Your task to perform on an android device: toggle show notifications on the lock screen Image 0: 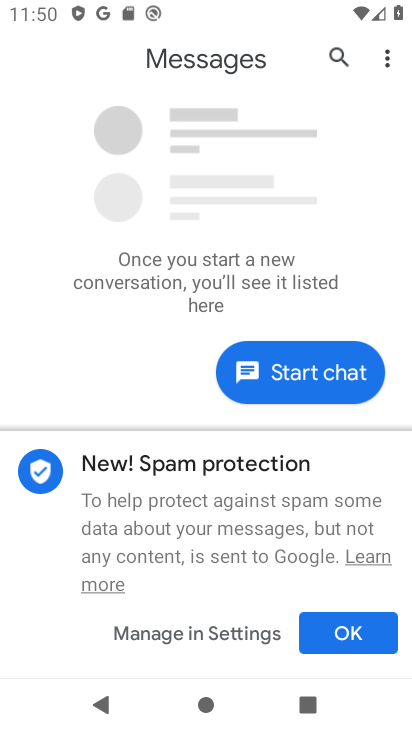
Step 0: press home button
Your task to perform on an android device: toggle show notifications on the lock screen Image 1: 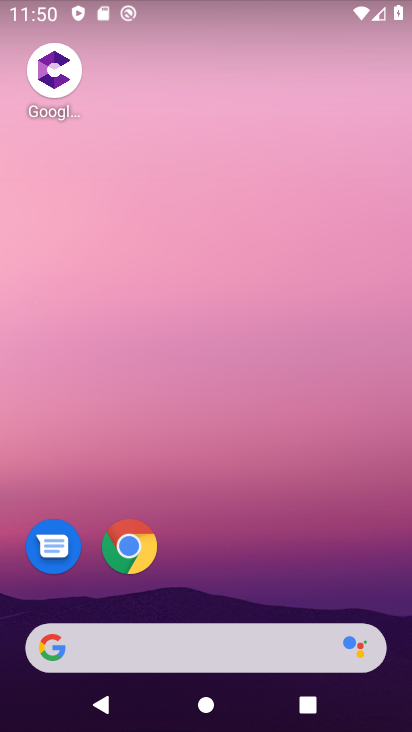
Step 1: drag from (258, 501) to (261, 94)
Your task to perform on an android device: toggle show notifications on the lock screen Image 2: 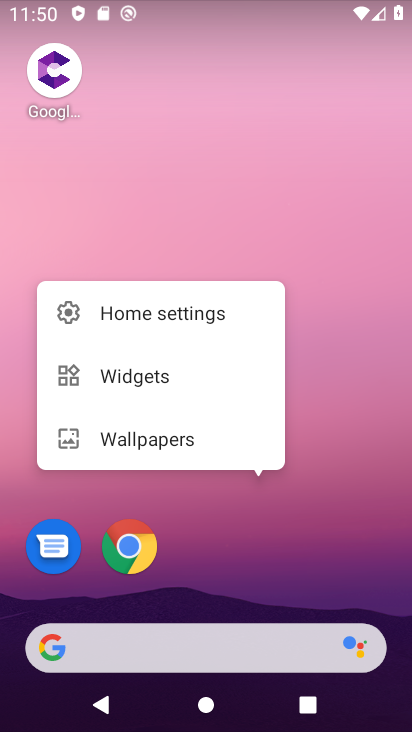
Step 2: click (318, 563)
Your task to perform on an android device: toggle show notifications on the lock screen Image 3: 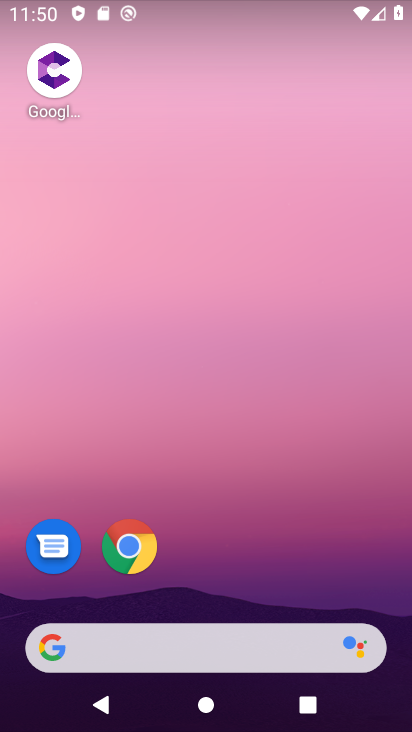
Step 3: drag from (318, 565) to (296, 67)
Your task to perform on an android device: toggle show notifications on the lock screen Image 4: 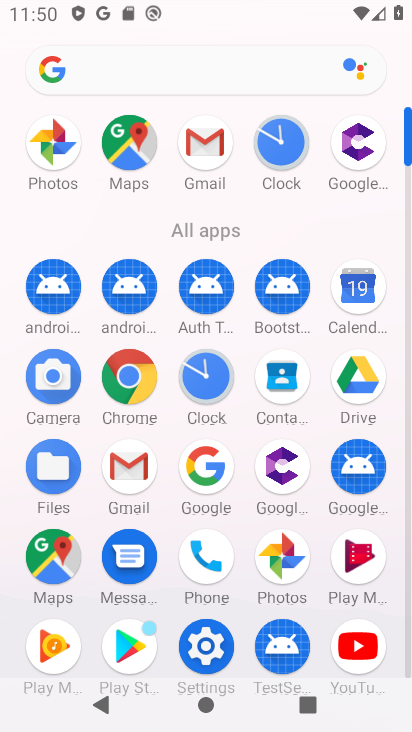
Step 4: click (213, 632)
Your task to perform on an android device: toggle show notifications on the lock screen Image 5: 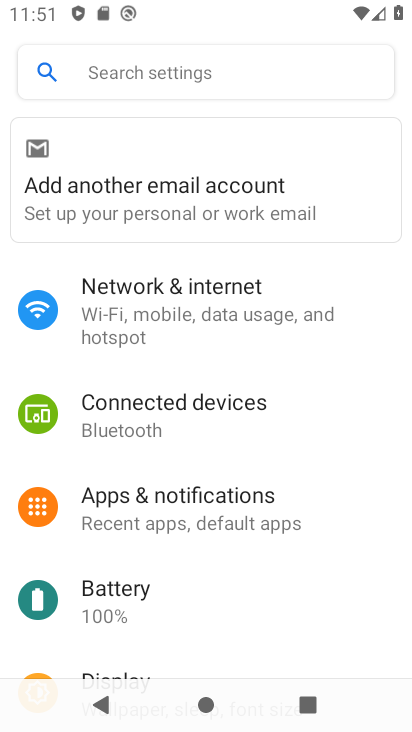
Step 5: drag from (225, 626) to (238, 231)
Your task to perform on an android device: toggle show notifications on the lock screen Image 6: 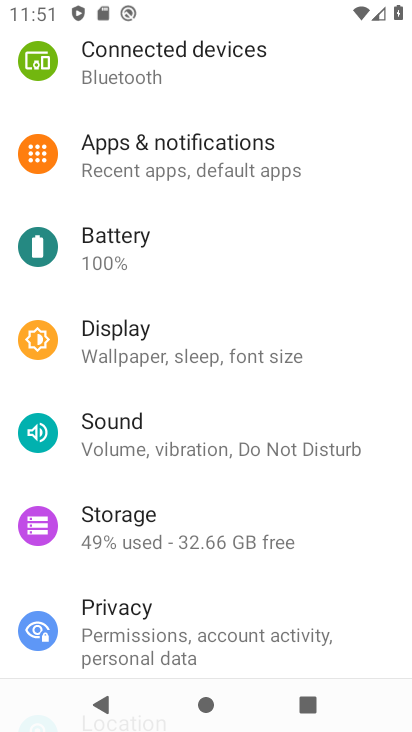
Step 6: click (206, 166)
Your task to perform on an android device: toggle show notifications on the lock screen Image 7: 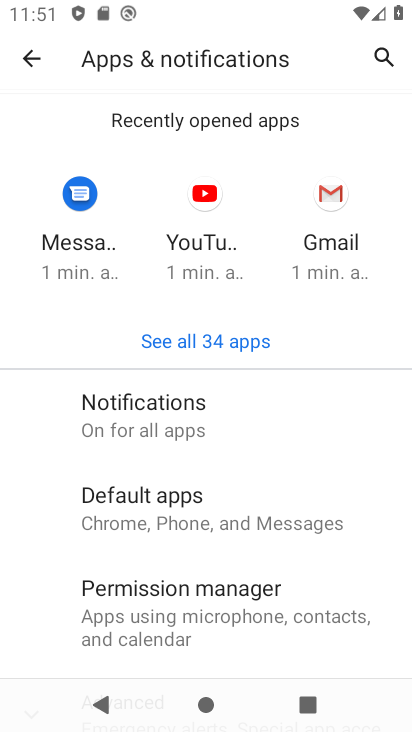
Step 7: click (191, 413)
Your task to perform on an android device: toggle show notifications on the lock screen Image 8: 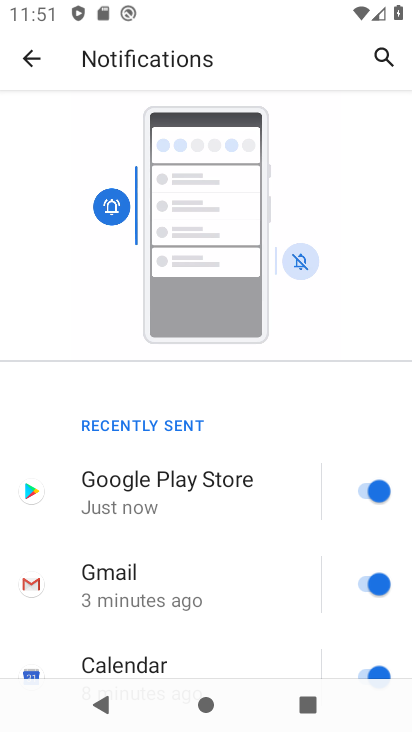
Step 8: drag from (235, 646) to (287, 182)
Your task to perform on an android device: toggle show notifications on the lock screen Image 9: 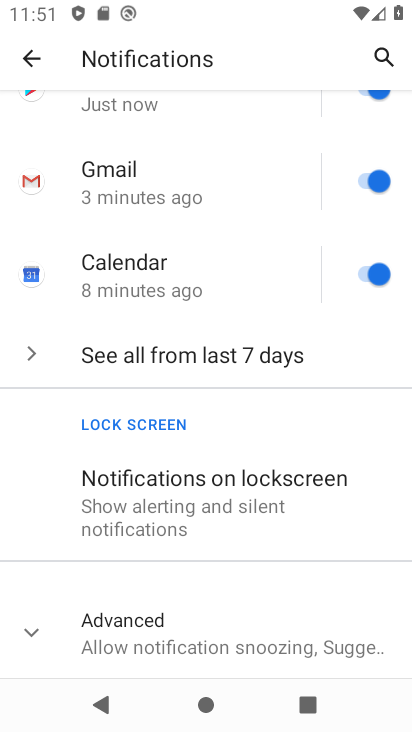
Step 9: click (269, 472)
Your task to perform on an android device: toggle show notifications on the lock screen Image 10: 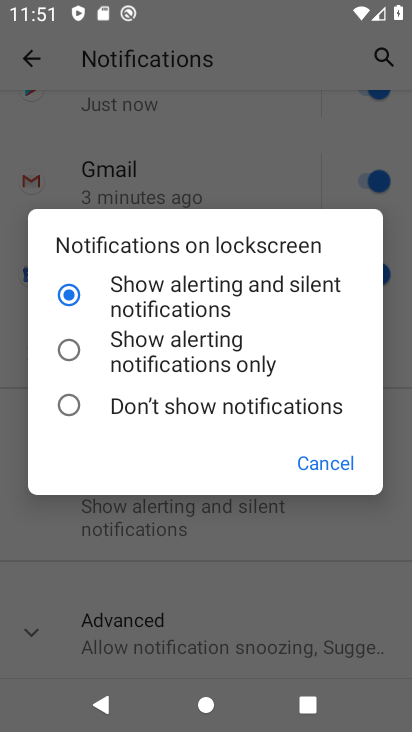
Step 10: click (206, 358)
Your task to perform on an android device: toggle show notifications on the lock screen Image 11: 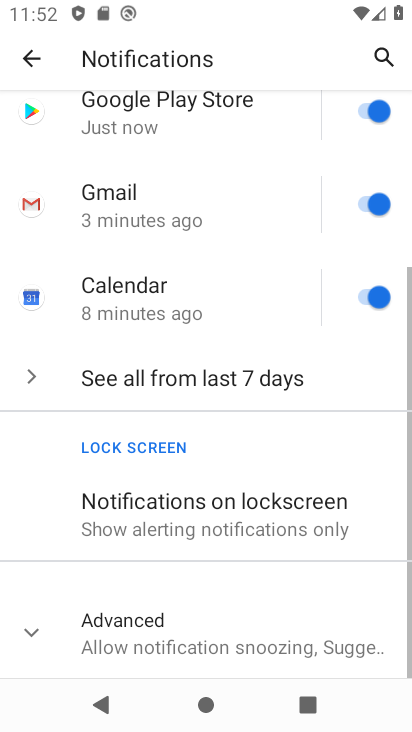
Step 11: task complete